Your task to perform on an android device: open a bookmark in the chrome app Image 0: 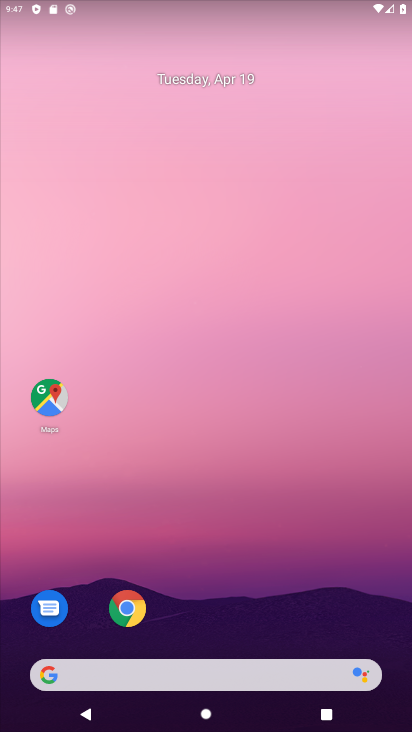
Step 0: click (129, 605)
Your task to perform on an android device: open a bookmark in the chrome app Image 1: 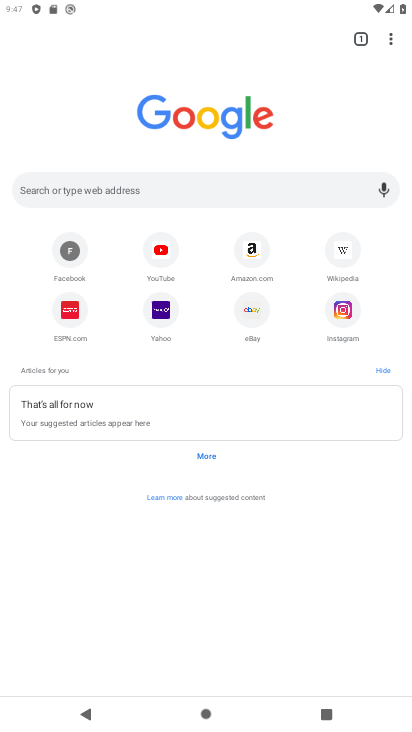
Step 1: click (389, 36)
Your task to perform on an android device: open a bookmark in the chrome app Image 2: 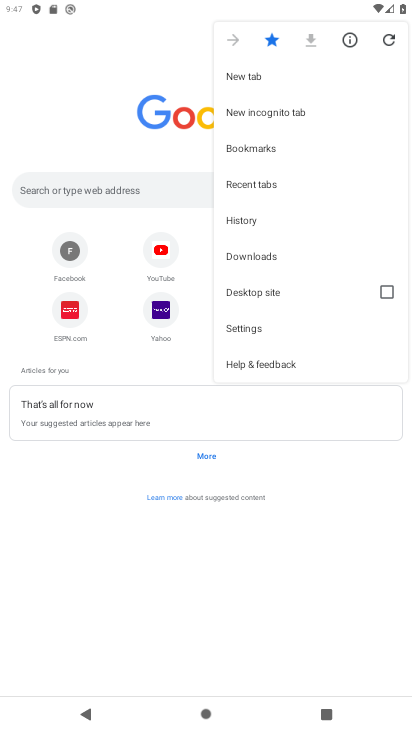
Step 2: click (252, 146)
Your task to perform on an android device: open a bookmark in the chrome app Image 3: 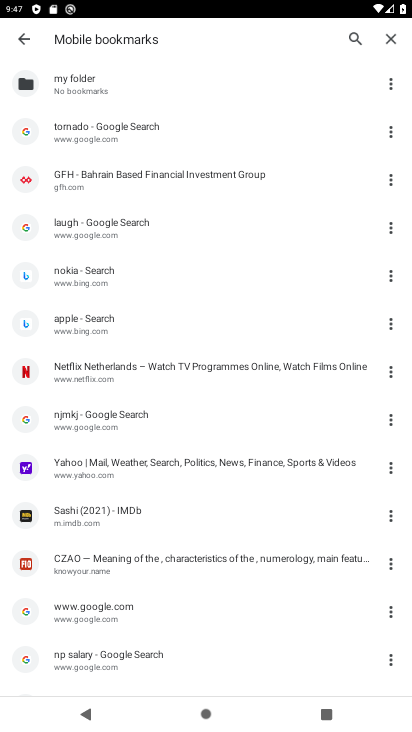
Step 3: click (70, 367)
Your task to perform on an android device: open a bookmark in the chrome app Image 4: 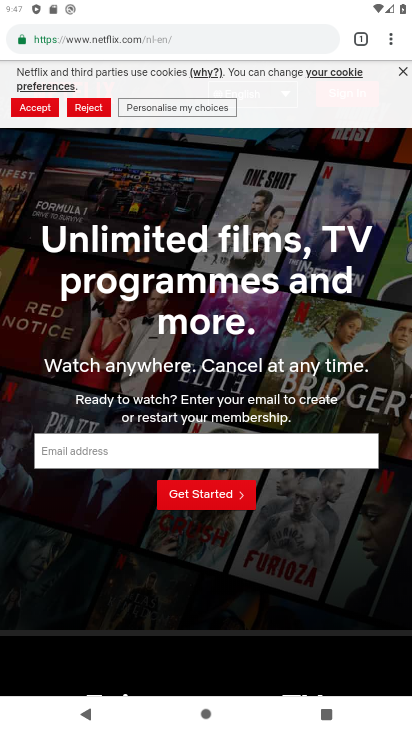
Step 4: task complete